Your task to perform on an android device: Open calendar and show me the second week of next month Image 0: 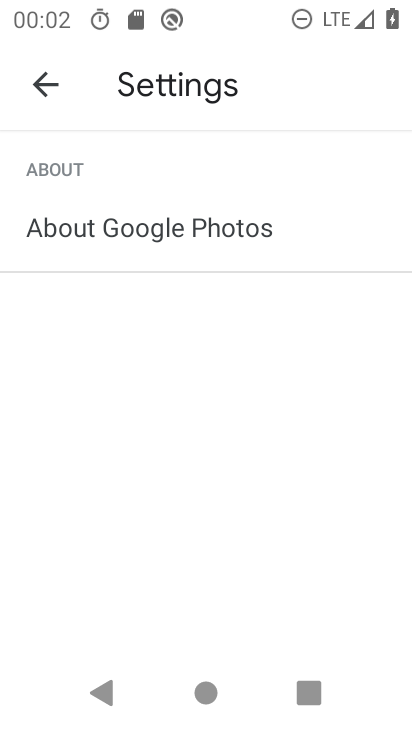
Step 0: press home button
Your task to perform on an android device: Open calendar and show me the second week of next month Image 1: 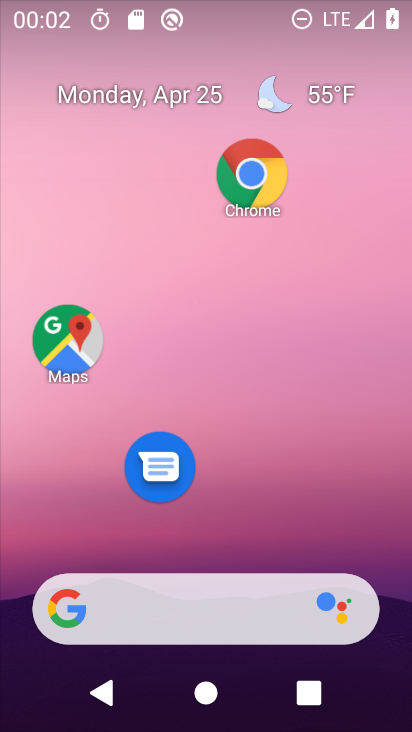
Step 1: drag from (241, 498) to (240, 44)
Your task to perform on an android device: Open calendar and show me the second week of next month Image 2: 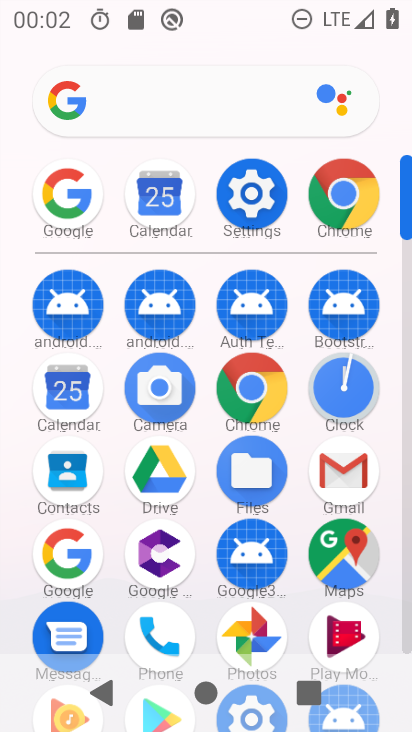
Step 2: click (67, 390)
Your task to perform on an android device: Open calendar and show me the second week of next month Image 3: 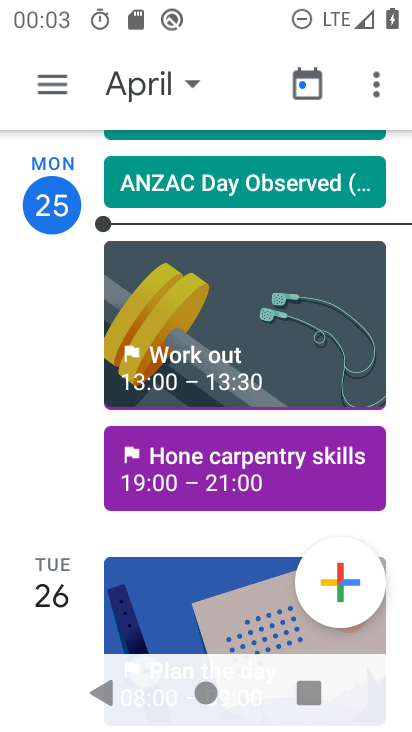
Step 3: click (188, 83)
Your task to perform on an android device: Open calendar and show me the second week of next month Image 4: 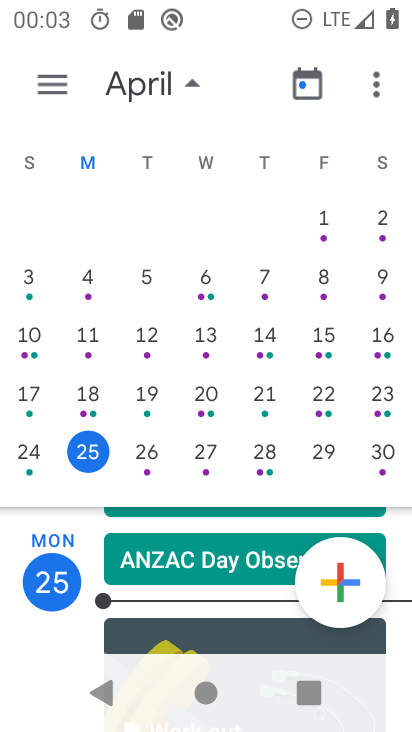
Step 4: drag from (399, 489) to (4, 439)
Your task to perform on an android device: Open calendar and show me the second week of next month Image 5: 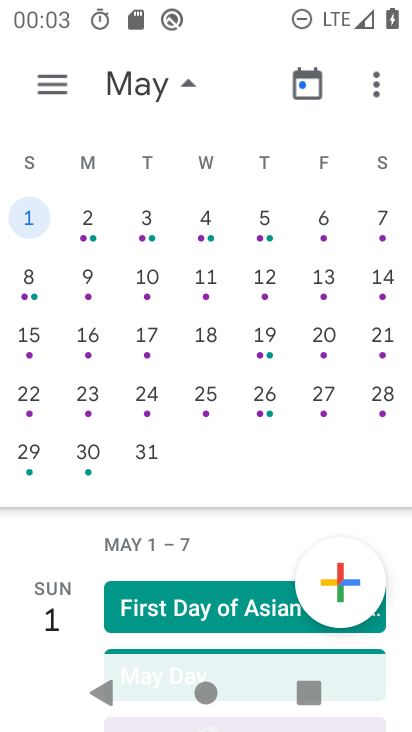
Step 5: click (82, 271)
Your task to perform on an android device: Open calendar and show me the second week of next month Image 6: 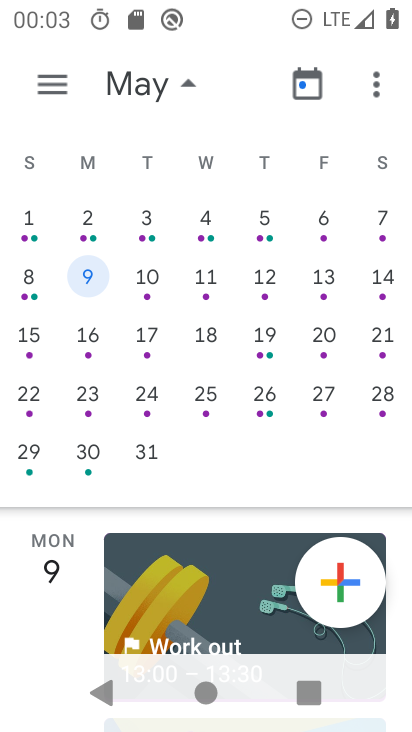
Step 6: task complete